Your task to perform on an android device: Go to wifi settings Image 0: 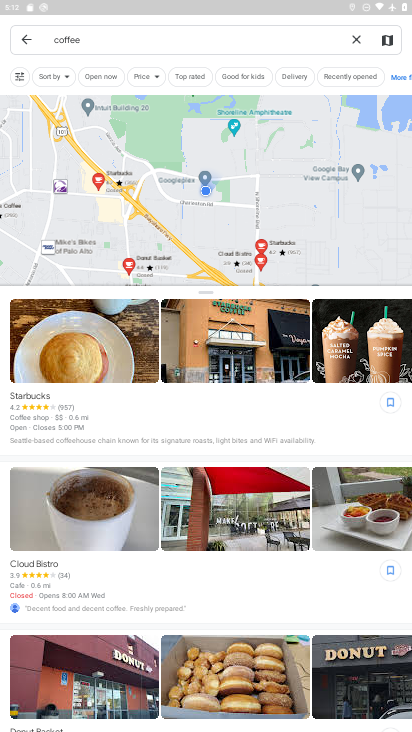
Step 0: press home button
Your task to perform on an android device: Go to wifi settings Image 1: 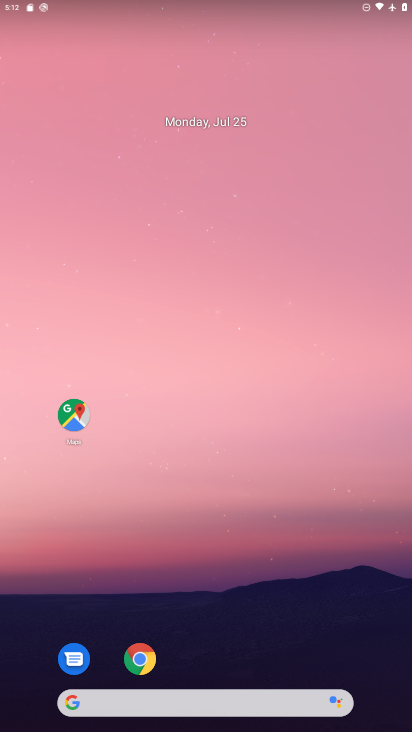
Step 1: drag from (302, 636) to (317, 56)
Your task to perform on an android device: Go to wifi settings Image 2: 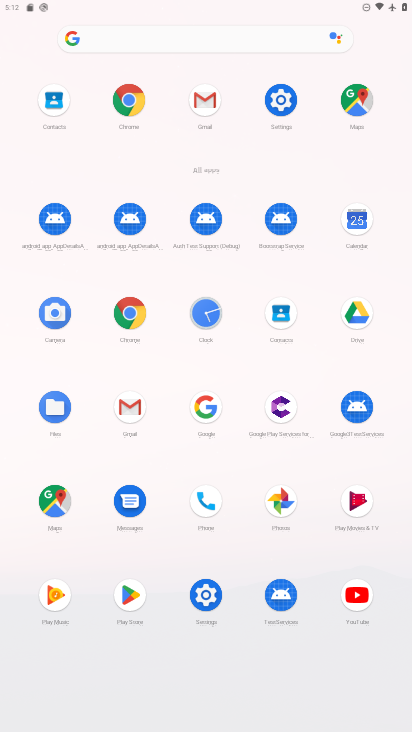
Step 2: click (278, 90)
Your task to perform on an android device: Go to wifi settings Image 3: 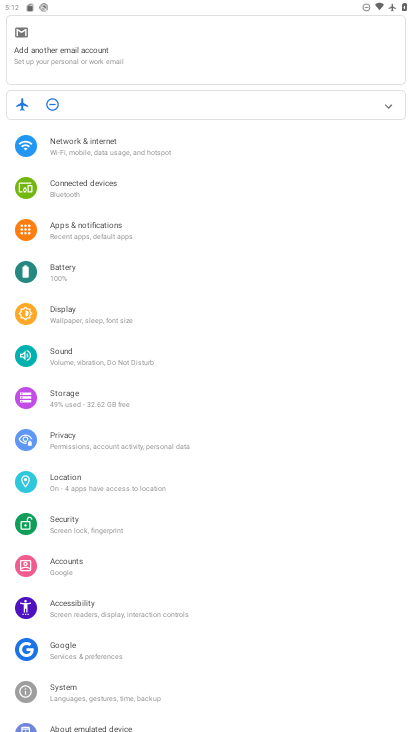
Step 3: click (212, 136)
Your task to perform on an android device: Go to wifi settings Image 4: 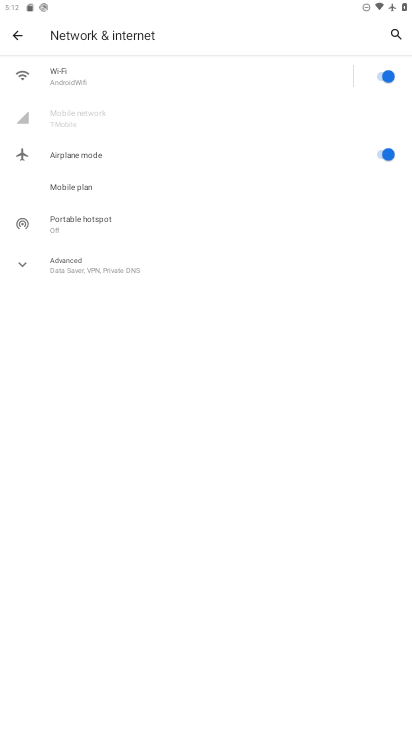
Step 4: click (259, 80)
Your task to perform on an android device: Go to wifi settings Image 5: 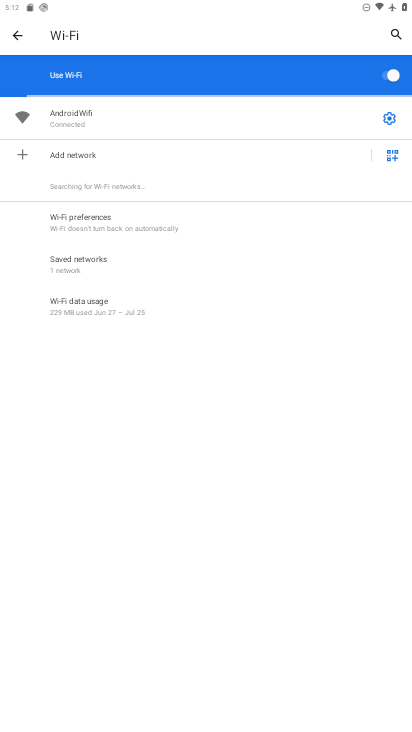
Step 5: task complete